Your task to perform on an android device: turn off picture-in-picture Image 0: 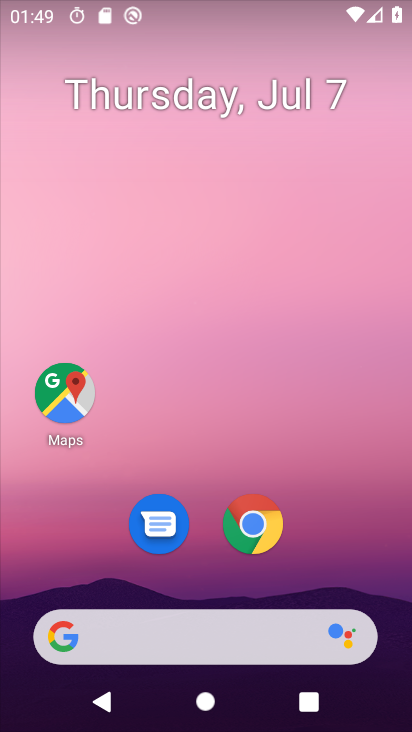
Step 0: click (255, 531)
Your task to perform on an android device: turn off picture-in-picture Image 1: 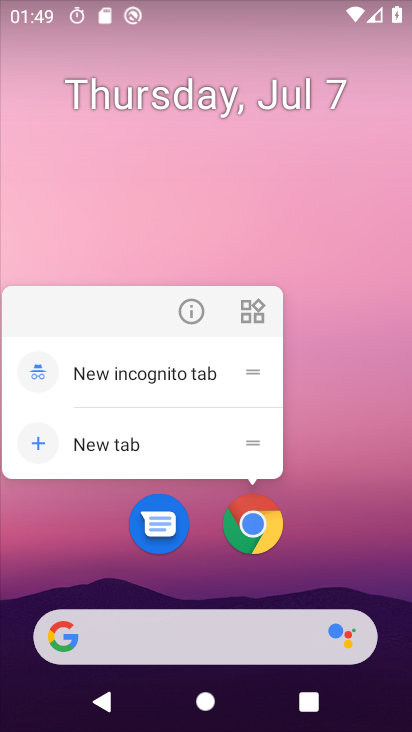
Step 1: click (187, 311)
Your task to perform on an android device: turn off picture-in-picture Image 2: 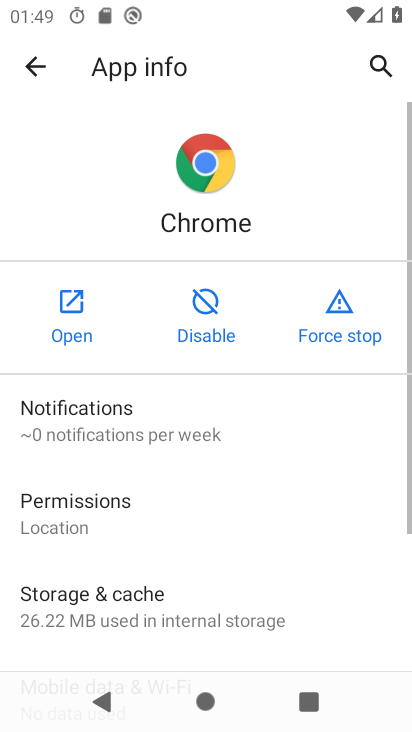
Step 2: drag from (192, 521) to (262, 93)
Your task to perform on an android device: turn off picture-in-picture Image 3: 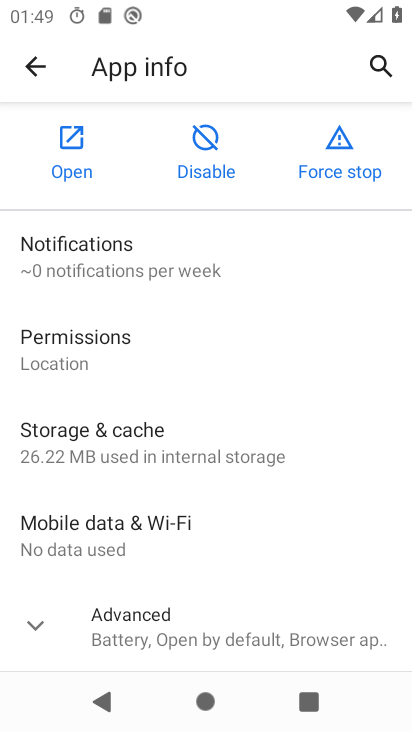
Step 3: click (35, 624)
Your task to perform on an android device: turn off picture-in-picture Image 4: 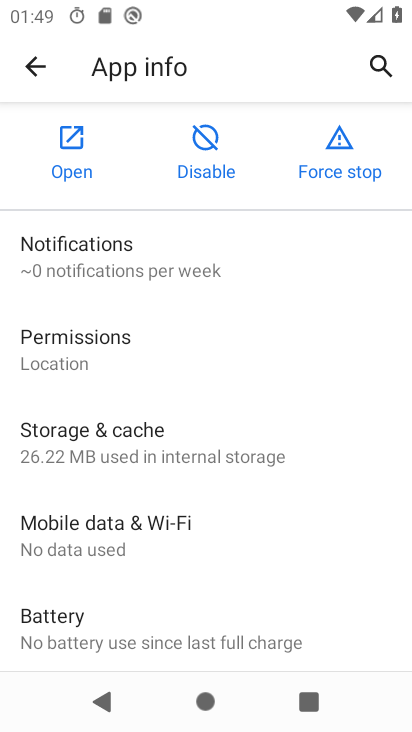
Step 4: drag from (176, 489) to (215, 117)
Your task to perform on an android device: turn off picture-in-picture Image 5: 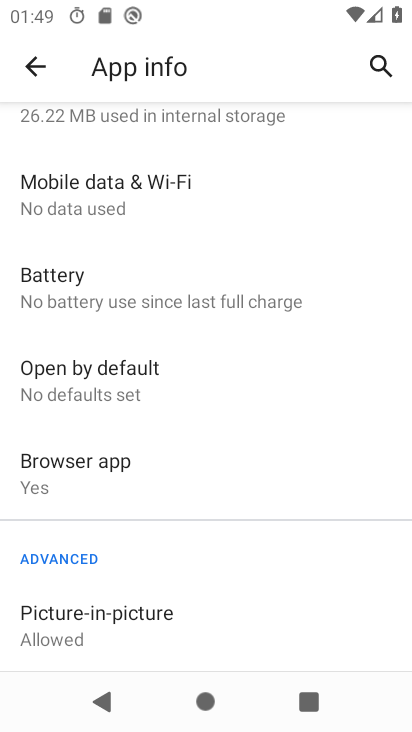
Step 5: click (117, 624)
Your task to perform on an android device: turn off picture-in-picture Image 6: 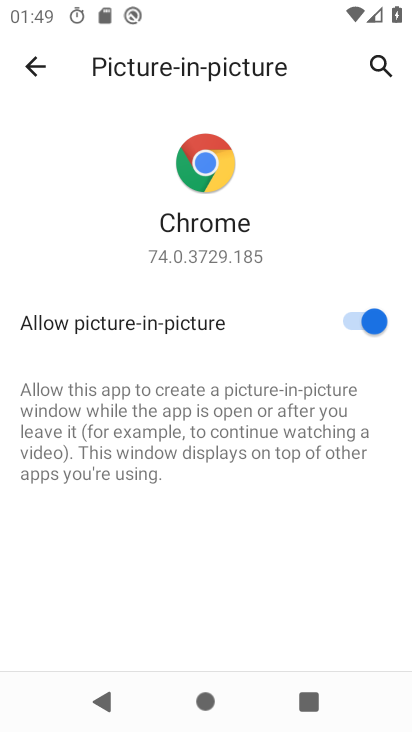
Step 6: click (364, 320)
Your task to perform on an android device: turn off picture-in-picture Image 7: 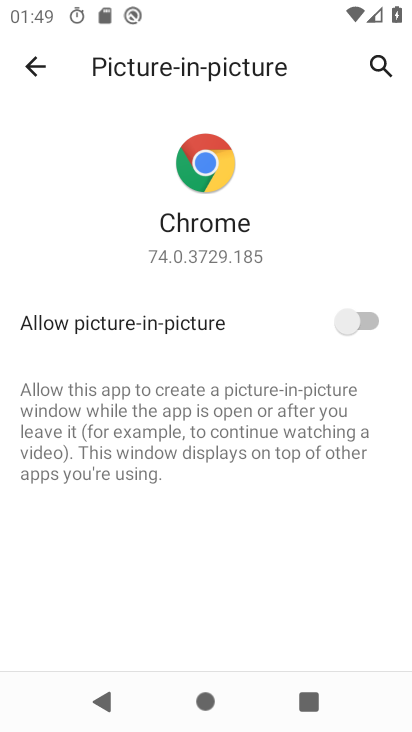
Step 7: task complete